Your task to perform on an android device: What is the recent news? Image 0: 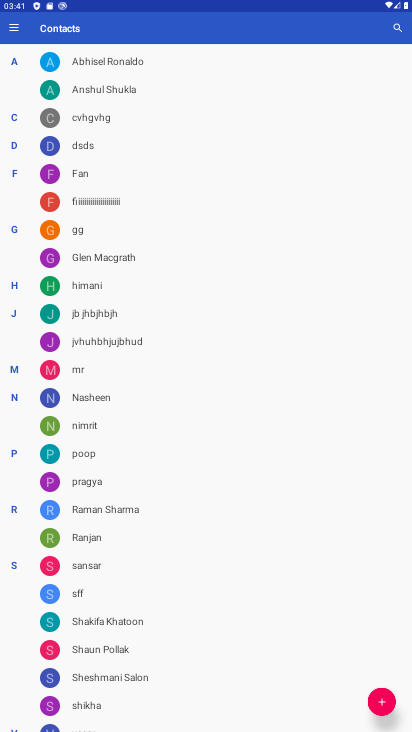
Step 0: press home button
Your task to perform on an android device: What is the recent news? Image 1: 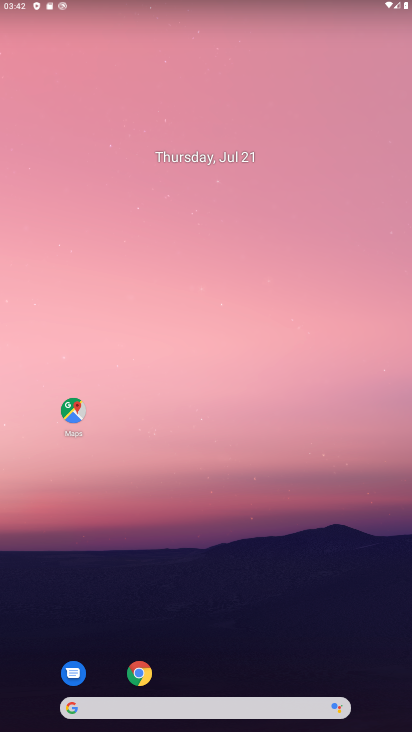
Step 1: drag from (223, 635) to (189, 59)
Your task to perform on an android device: What is the recent news? Image 2: 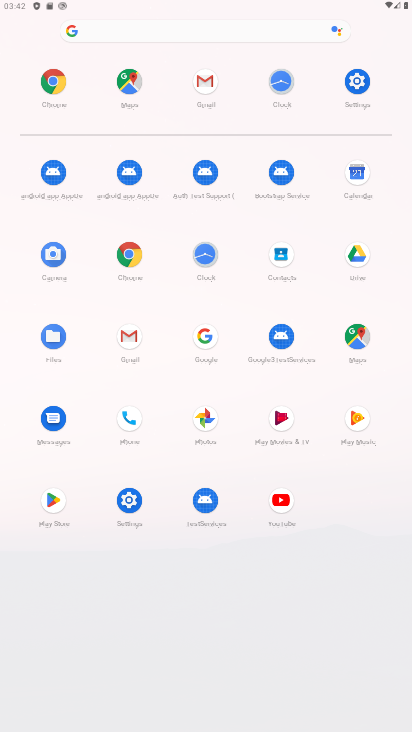
Step 2: click (125, 251)
Your task to perform on an android device: What is the recent news? Image 3: 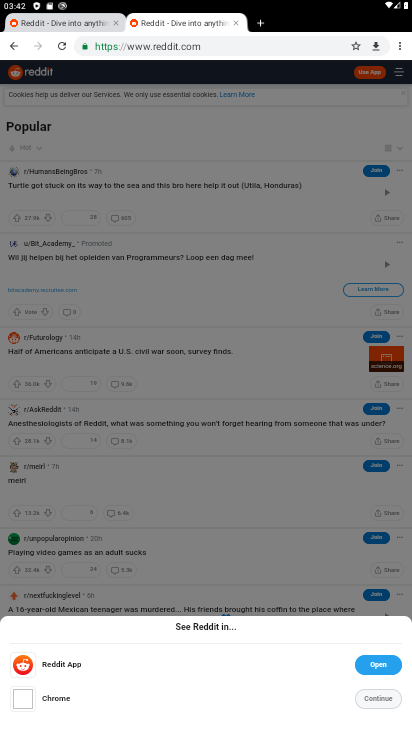
Step 3: click (204, 51)
Your task to perform on an android device: What is the recent news? Image 4: 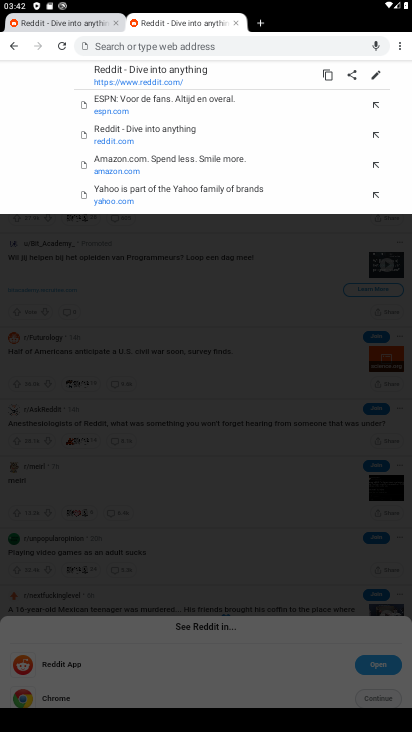
Step 4: type "ne"
Your task to perform on an android device: What is the recent news? Image 5: 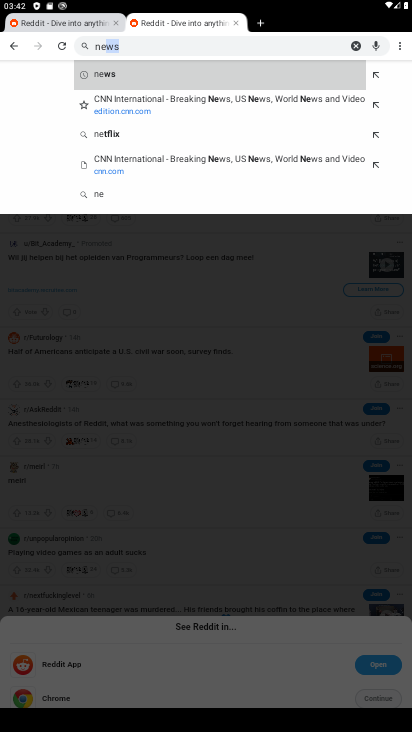
Step 5: type "ws"
Your task to perform on an android device: What is the recent news? Image 6: 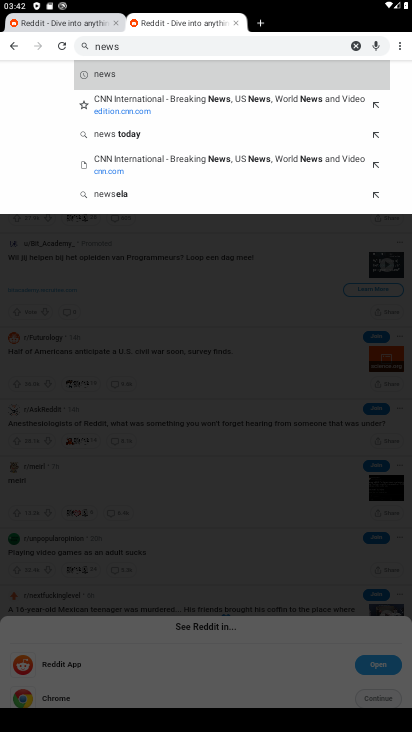
Step 6: click (112, 64)
Your task to perform on an android device: What is the recent news? Image 7: 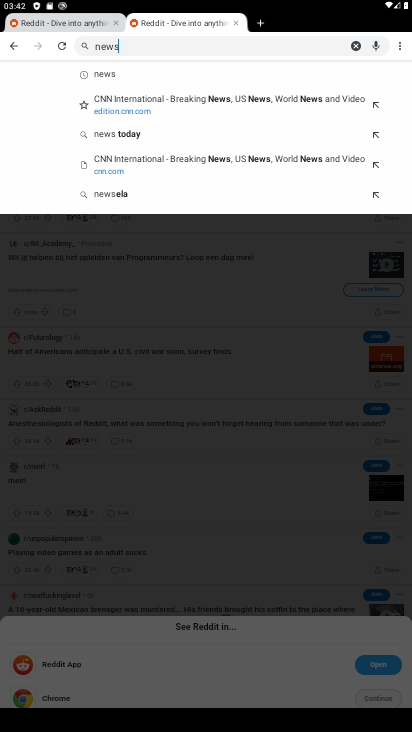
Step 7: click (111, 71)
Your task to perform on an android device: What is the recent news? Image 8: 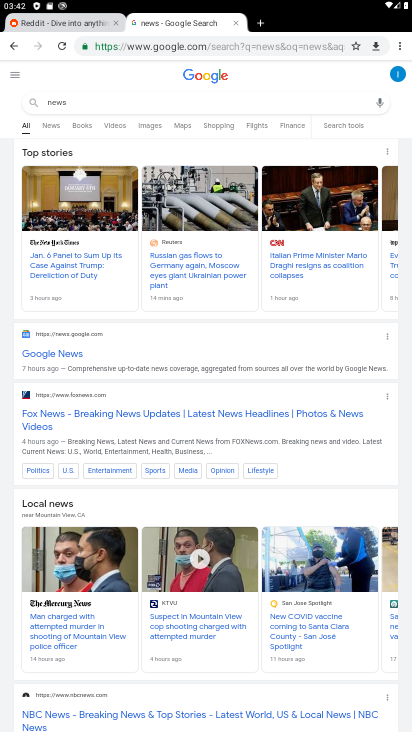
Step 8: click (79, 355)
Your task to perform on an android device: What is the recent news? Image 9: 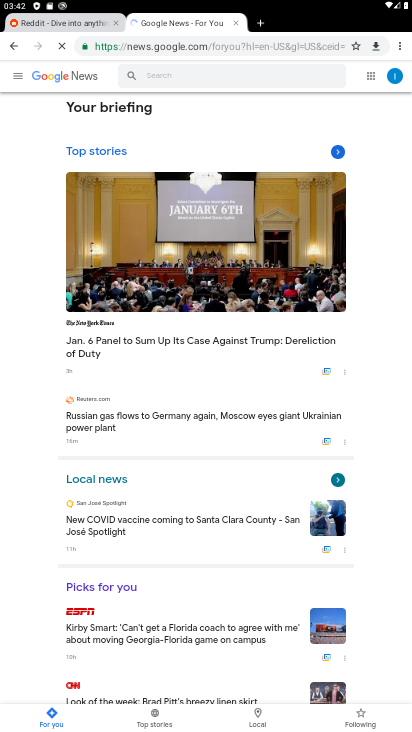
Step 9: task complete